Your task to perform on an android device: Open the calendar app, open the side menu, and click the "Day" option Image 0: 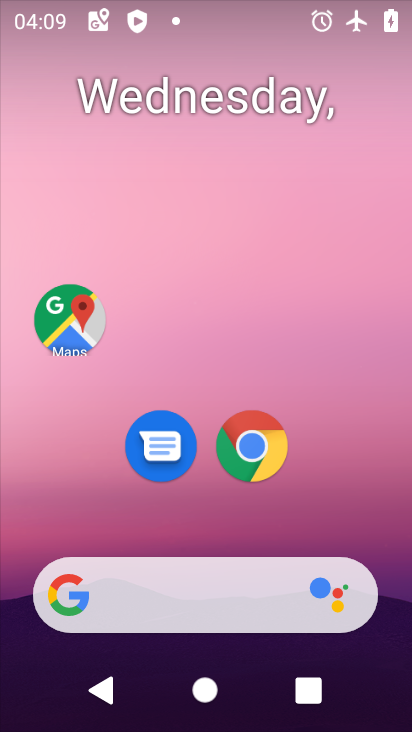
Step 0: drag from (200, 552) to (208, 212)
Your task to perform on an android device: Open the calendar app, open the side menu, and click the "Day" option Image 1: 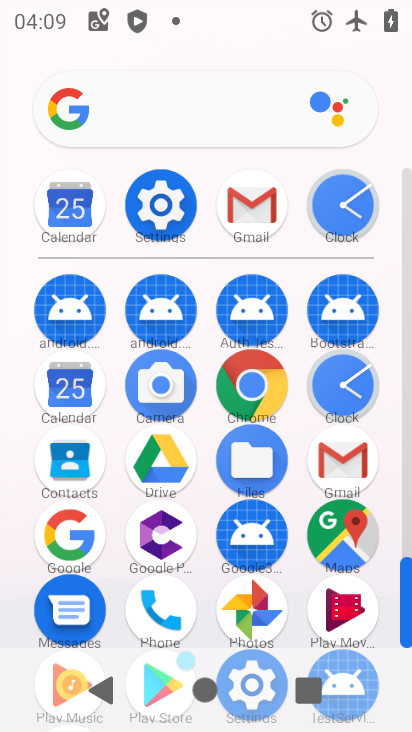
Step 1: click (82, 195)
Your task to perform on an android device: Open the calendar app, open the side menu, and click the "Day" option Image 2: 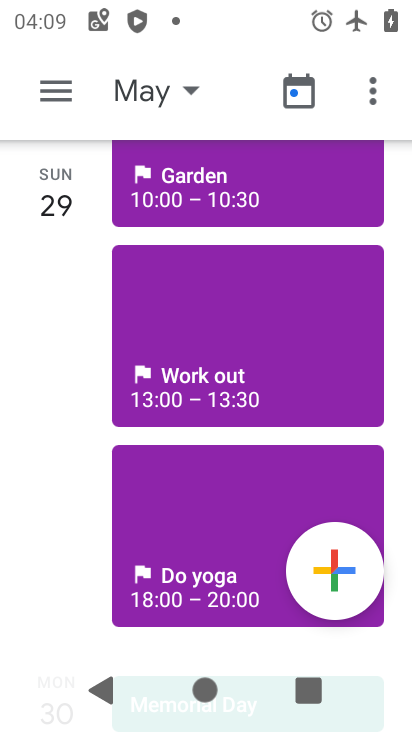
Step 2: click (59, 102)
Your task to perform on an android device: Open the calendar app, open the side menu, and click the "Day" option Image 3: 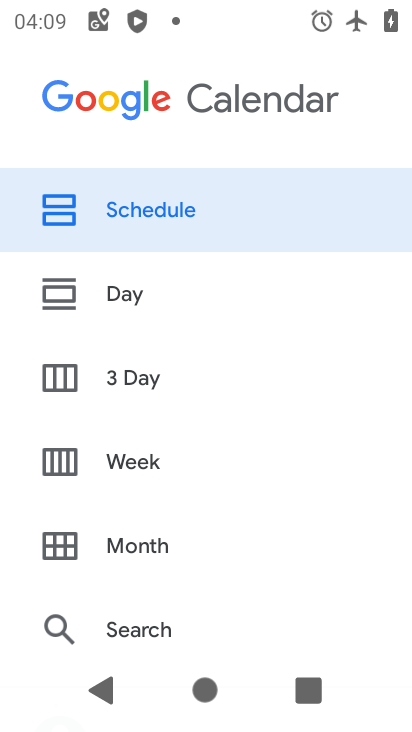
Step 3: click (137, 278)
Your task to perform on an android device: Open the calendar app, open the side menu, and click the "Day" option Image 4: 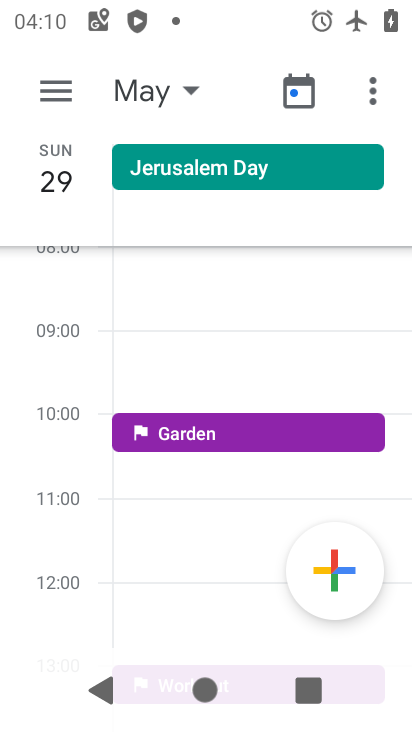
Step 4: task complete